Your task to perform on an android device: open app "Google Calendar" (install if not already installed) Image 0: 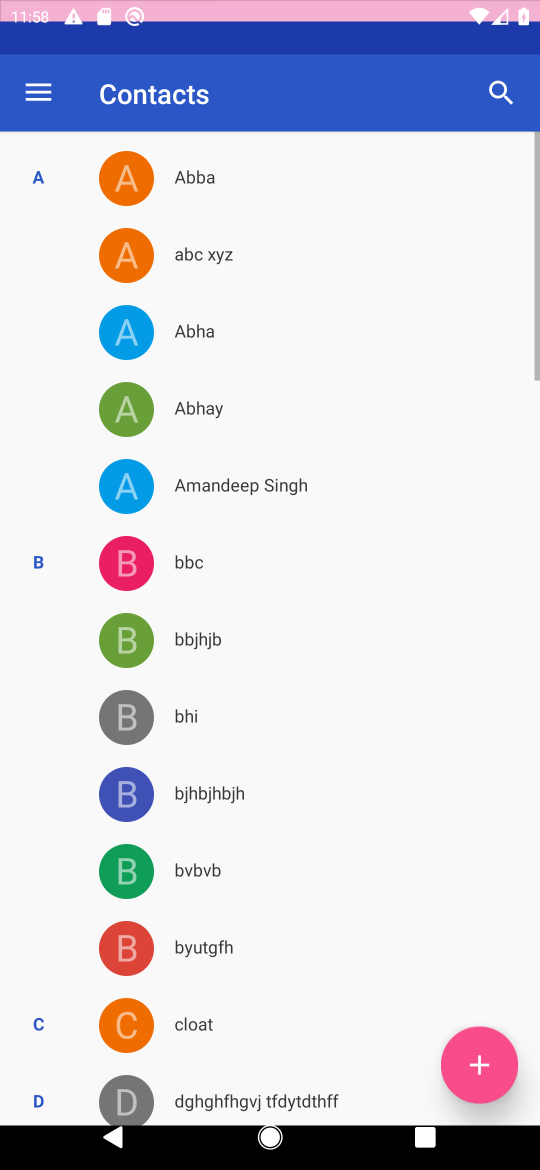
Step 0: press home button
Your task to perform on an android device: open app "Google Calendar" (install if not already installed) Image 1: 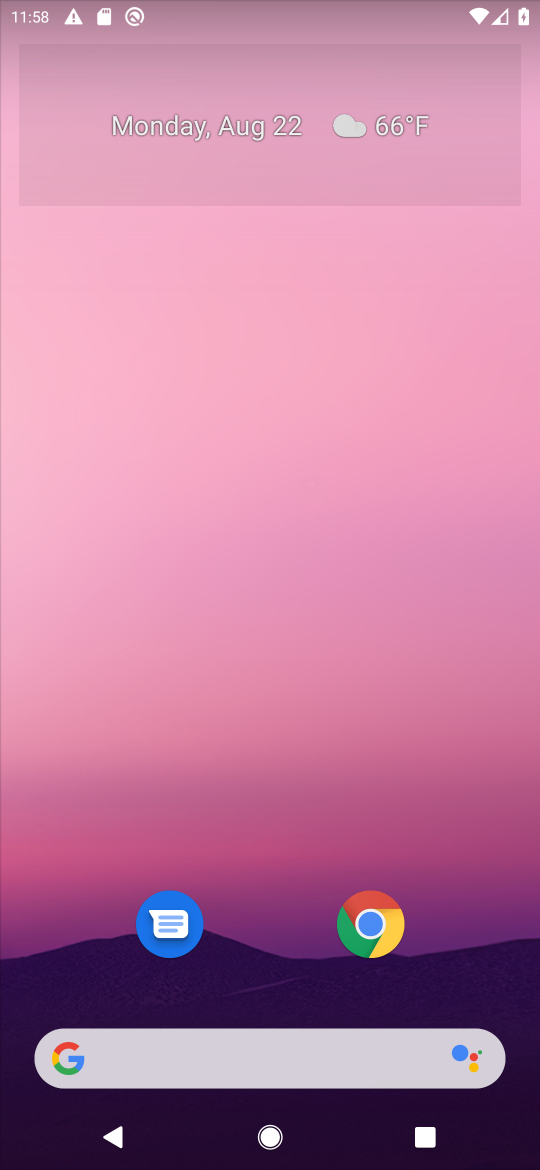
Step 1: drag from (480, 836) to (478, 226)
Your task to perform on an android device: open app "Google Calendar" (install if not already installed) Image 2: 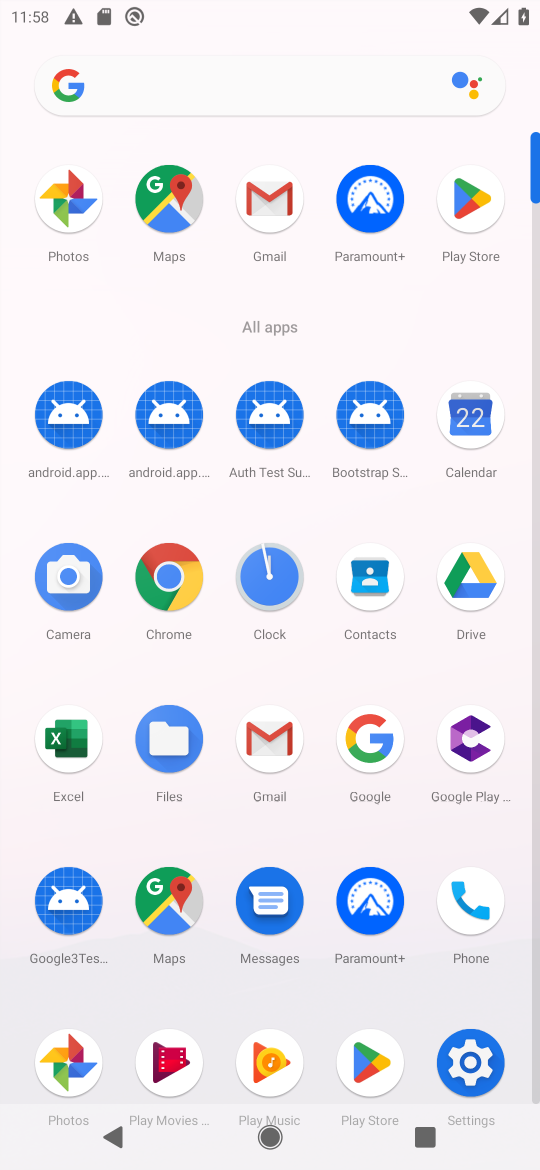
Step 2: click (470, 202)
Your task to perform on an android device: open app "Google Calendar" (install if not already installed) Image 3: 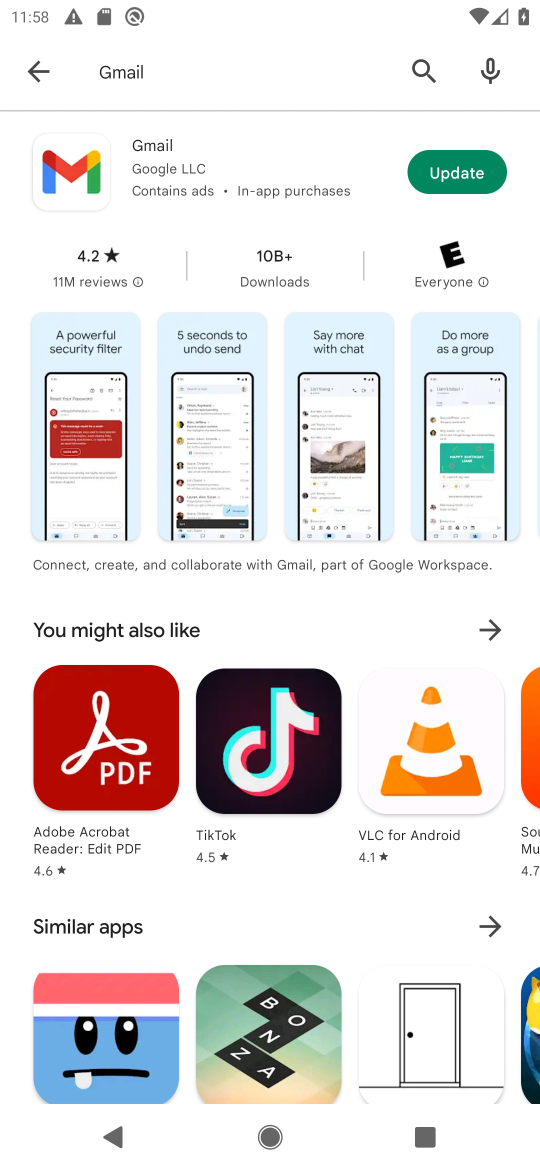
Step 3: press back button
Your task to perform on an android device: open app "Google Calendar" (install if not already installed) Image 4: 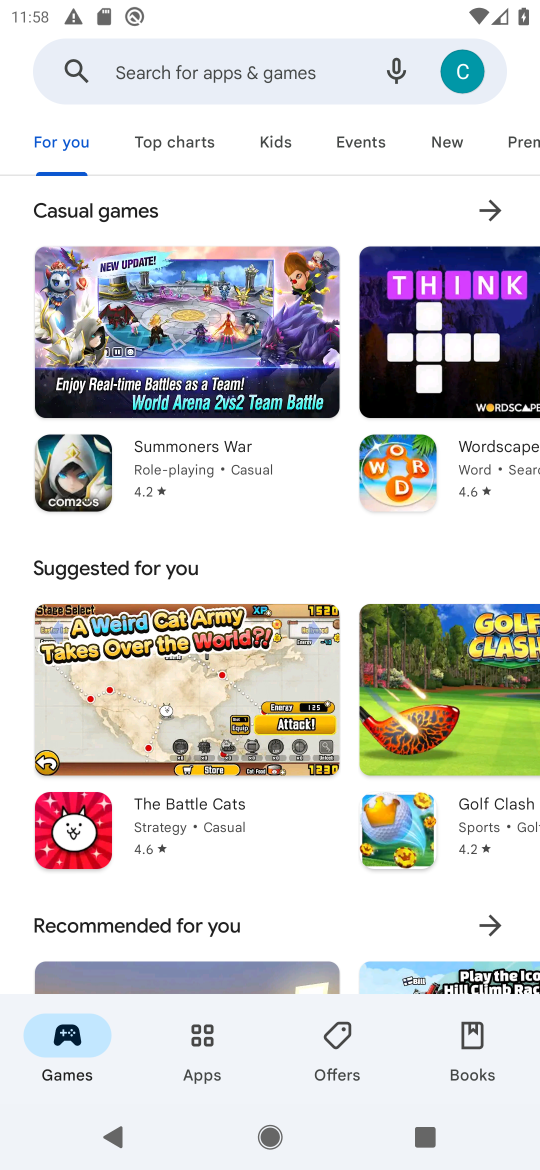
Step 4: click (192, 74)
Your task to perform on an android device: open app "Google Calendar" (install if not already installed) Image 5: 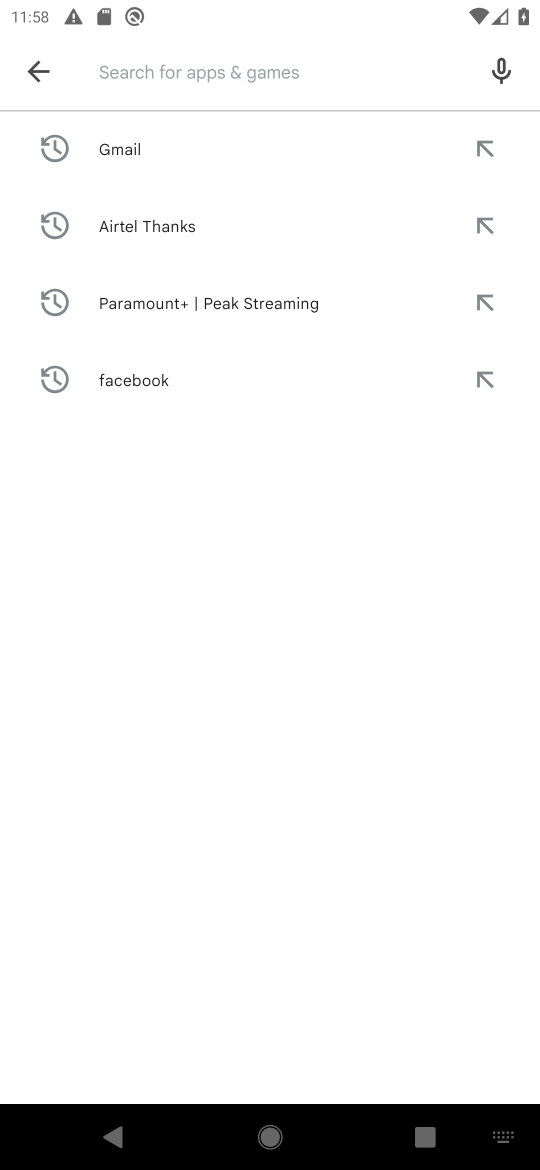
Step 5: press enter
Your task to perform on an android device: open app "Google Calendar" (install if not already installed) Image 6: 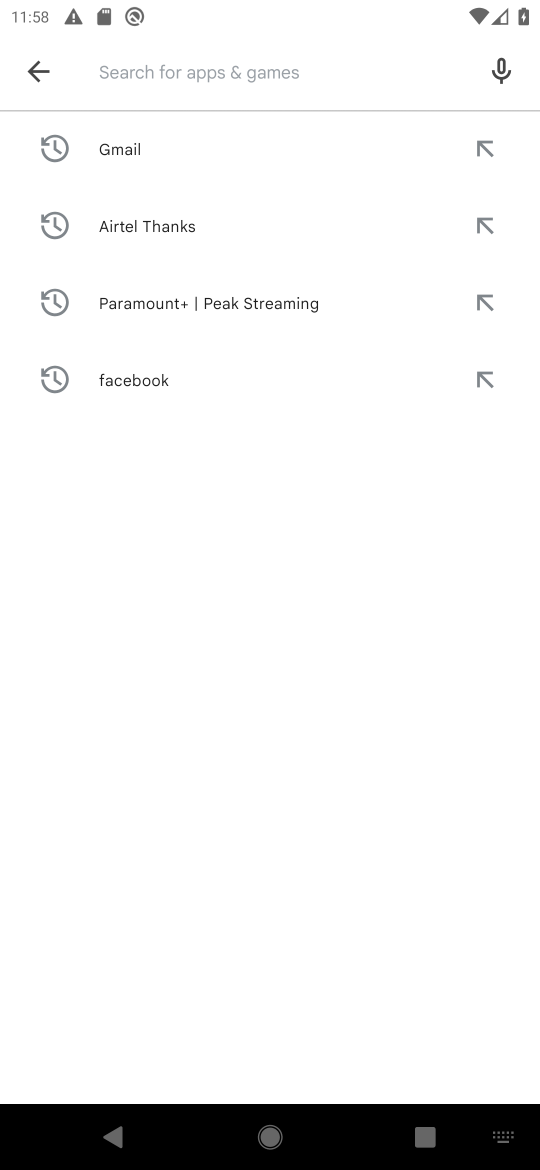
Step 6: type "Google Calendar"
Your task to perform on an android device: open app "Google Calendar" (install if not already installed) Image 7: 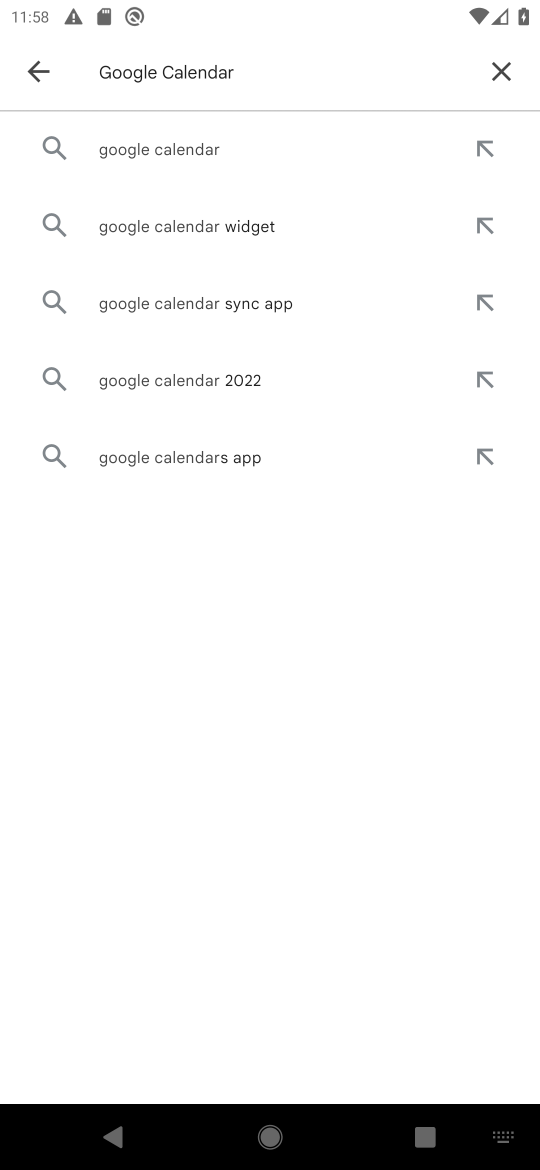
Step 7: click (191, 144)
Your task to perform on an android device: open app "Google Calendar" (install if not already installed) Image 8: 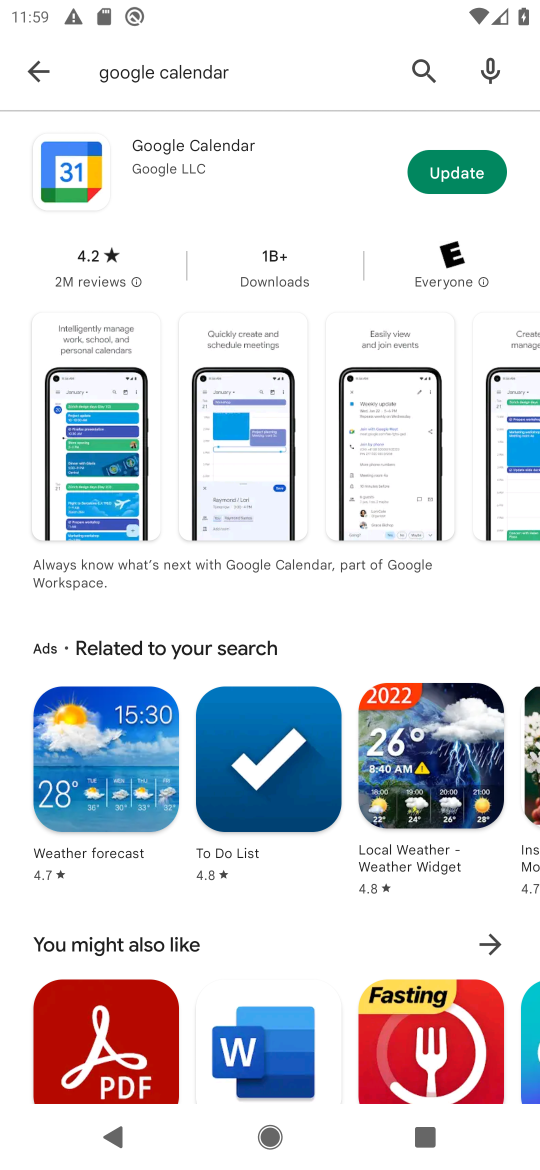
Step 8: click (448, 173)
Your task to perform on an android device: open app "Google Calendar" (install if not already installed) Image 9: 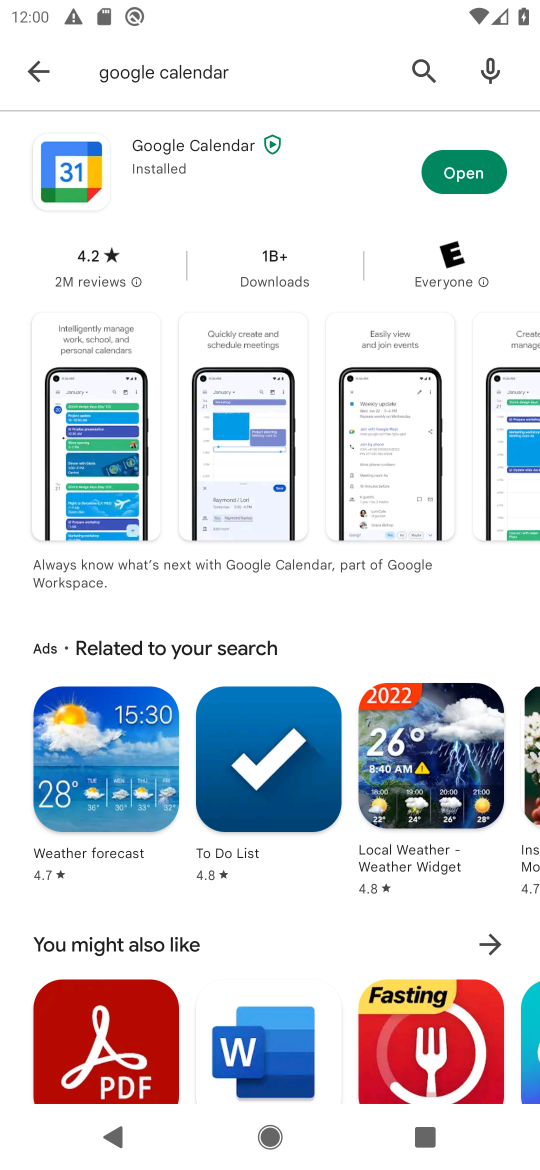
Step 9: click (473, 160)
Your task to perform on an android device: open app "Google Calendar" (install if not already installed) Image 10: 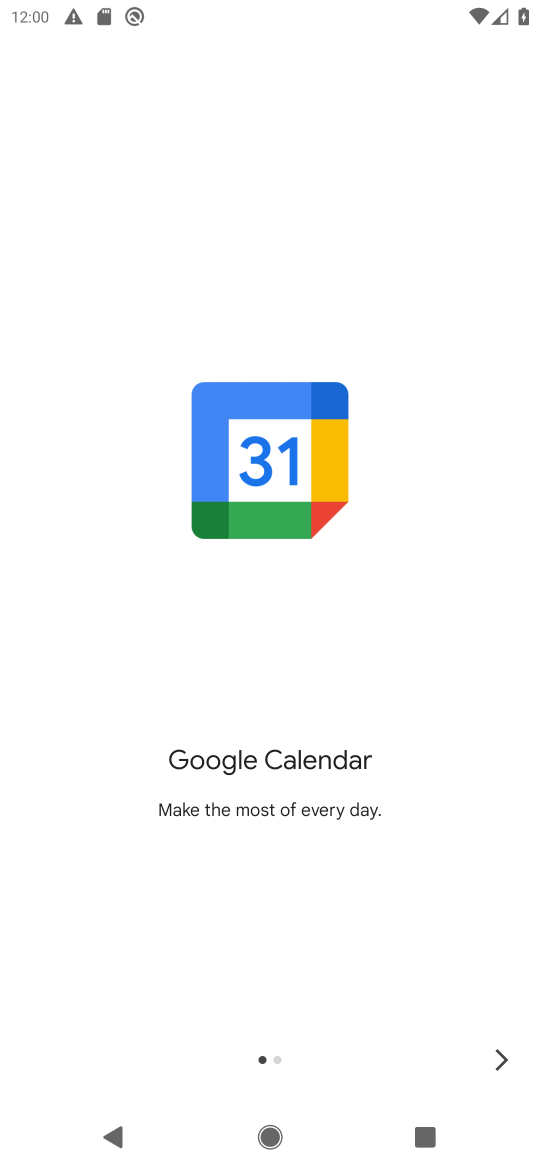
Step 10: click (506, 1059)
Your task to perform on an android device: open app "Google Calendar" (install if not already installed) Image 11: 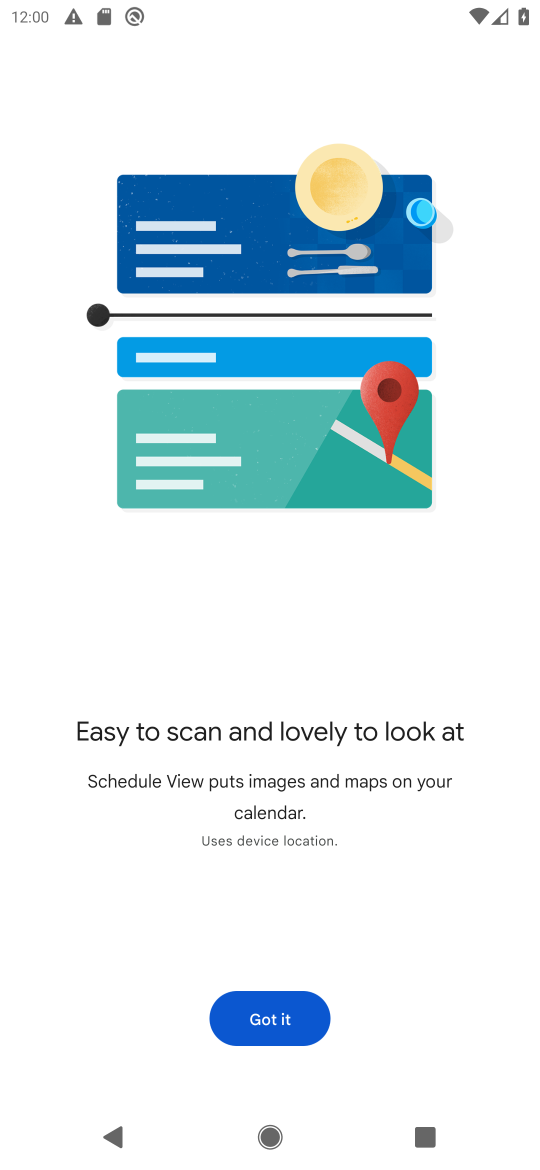
Step 11: click (284, 1027)
Your task to perform on an android device: open app "Google Calendar" (install if not already installed) Image 12: 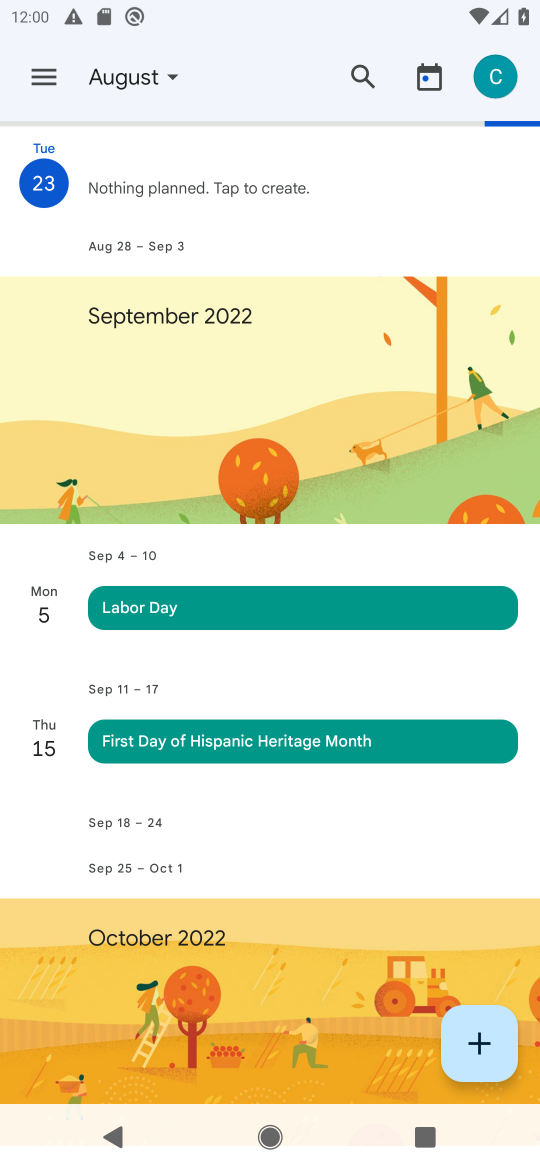
Step 12: task complete